Your task to perform on an android device: Open Wikipedia Image 0: 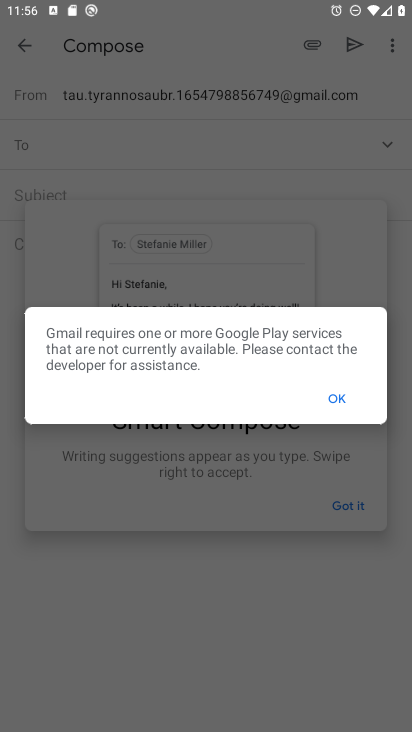
Step 0: press home button
Your task to perform on an android device: Open Wikipedia Image 1: 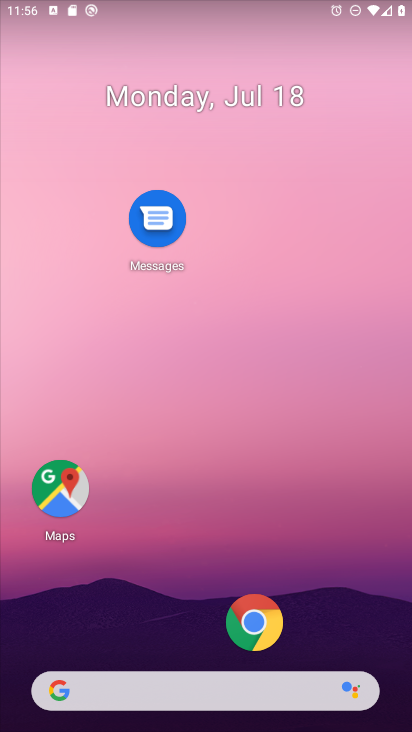
Step 1: drag from (247, 661) to (277, 141)
Your task to perform on an android device: Open Wikipedia Image 2: 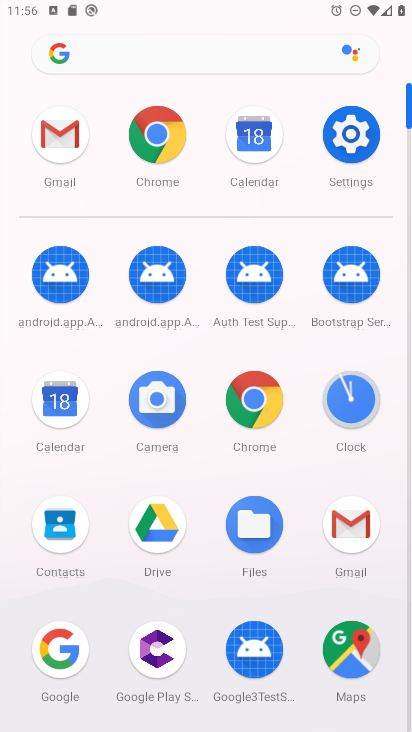
Step 2: drag from (239, 468) to (294, 121)
Your task to perform on an android device: Open Wikipedia Image 3: 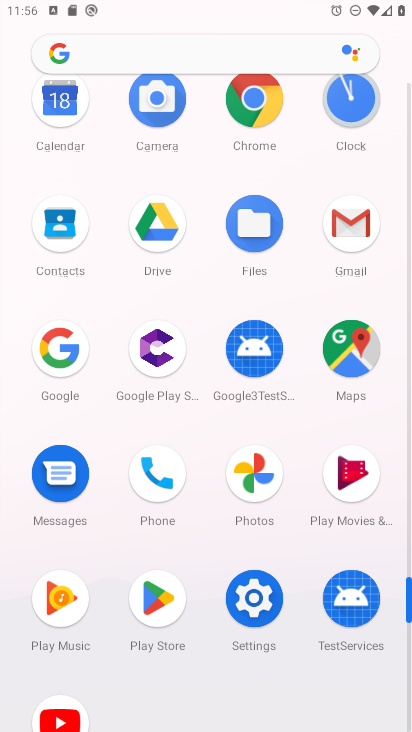
Step 3: click (273, 115)
Your task to perform on an android device: Open Wikipedia Image 4: 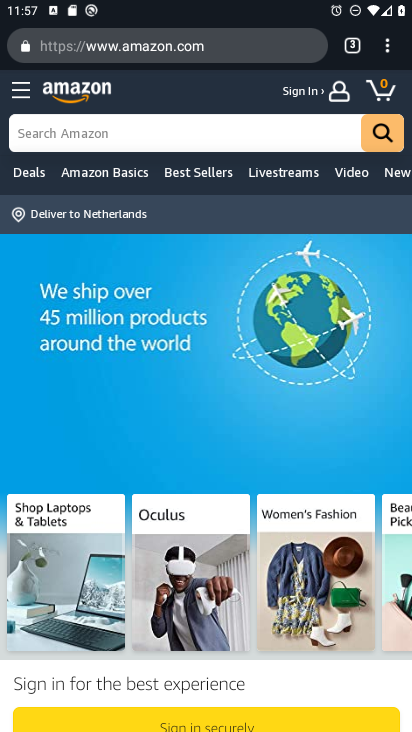
Step 4: click (144, 57)
Your task to perform on an android device: Open Wikipedia Image 5: 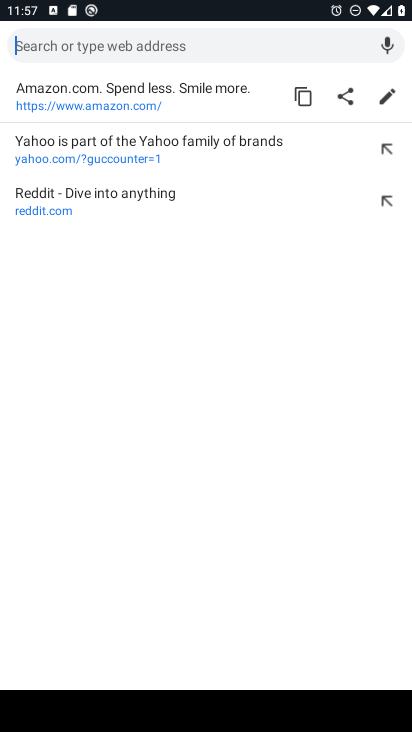
Step 5: click (241, 53)
Your task to perform on an android device: Open Wikipedia Image 6: 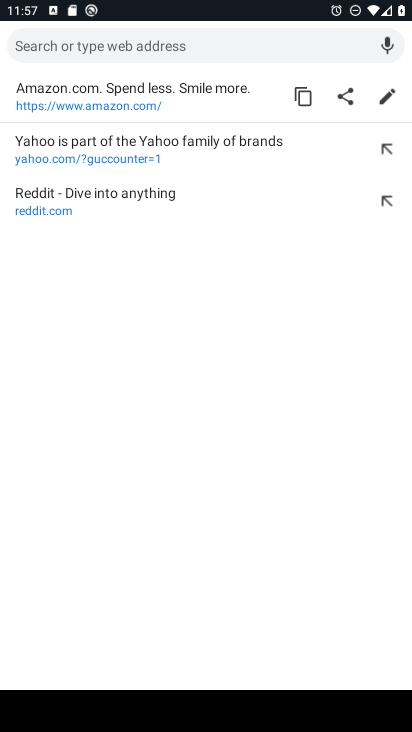
Step 6: type "wikipedia"
Your task to perform on an android device: Open Wikipedia Image 7: 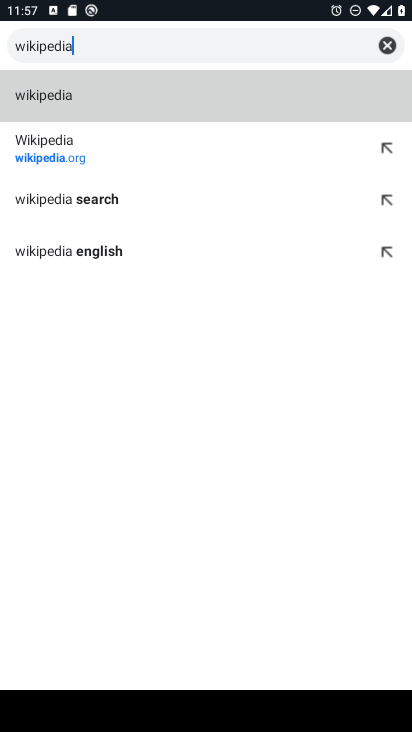
Step 7: click (135, 148)
Your task to perform on an android device: Open Wikipedia Image 8: 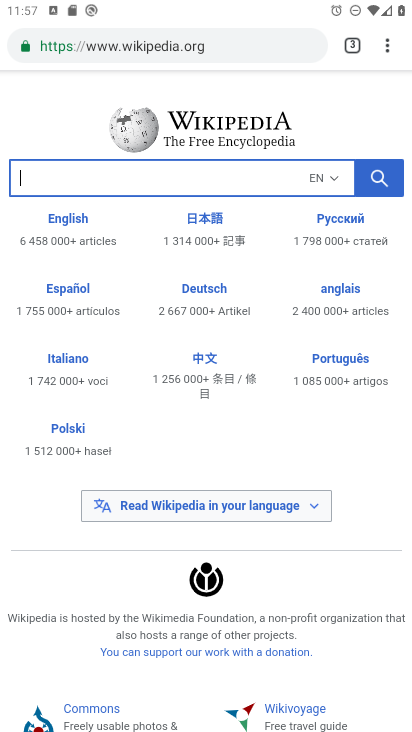
Step 8: task complete